Your task to perform on an android device: What's the weather going to be tomorrow? Image 0: 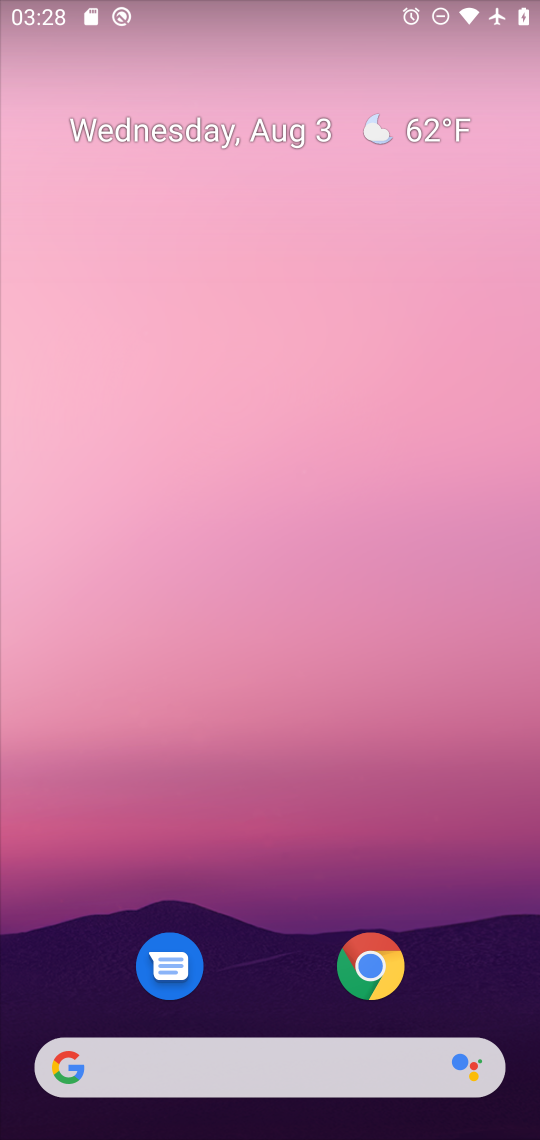
Step 0: drag from (288, 901) to (302, 375)
Your task to perform on an android device: What's the weather going to be tomorrow? Image 1: 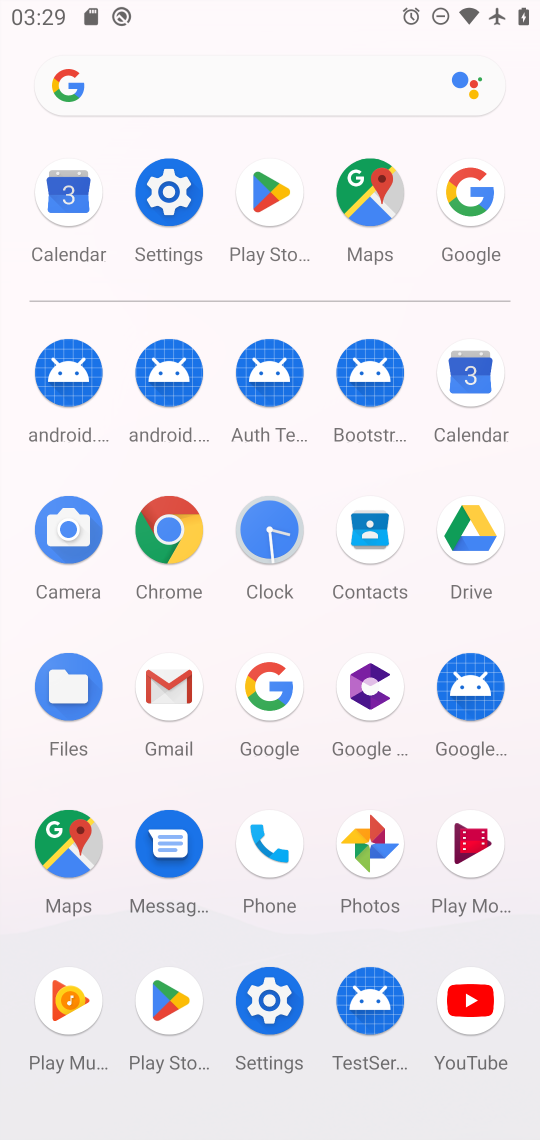
Step 1: click (294, 703)
Your task to perform on an android device: What's the weather going to be tomorrow? Image 2: 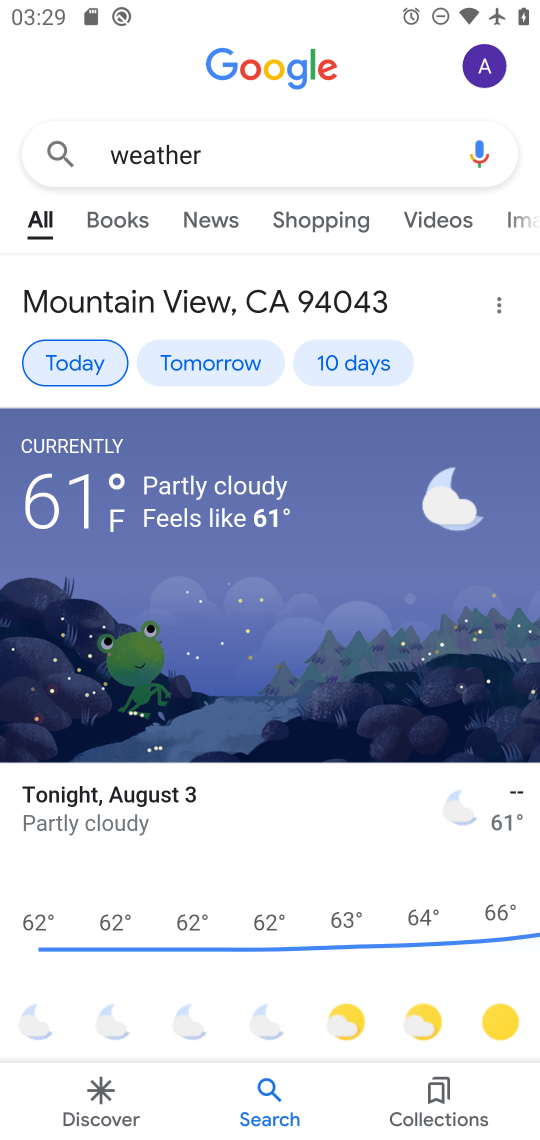
Step 2: click (230, 366)
Your task to perform on an android device: What's the weather going to be tomorrow? Image 3: 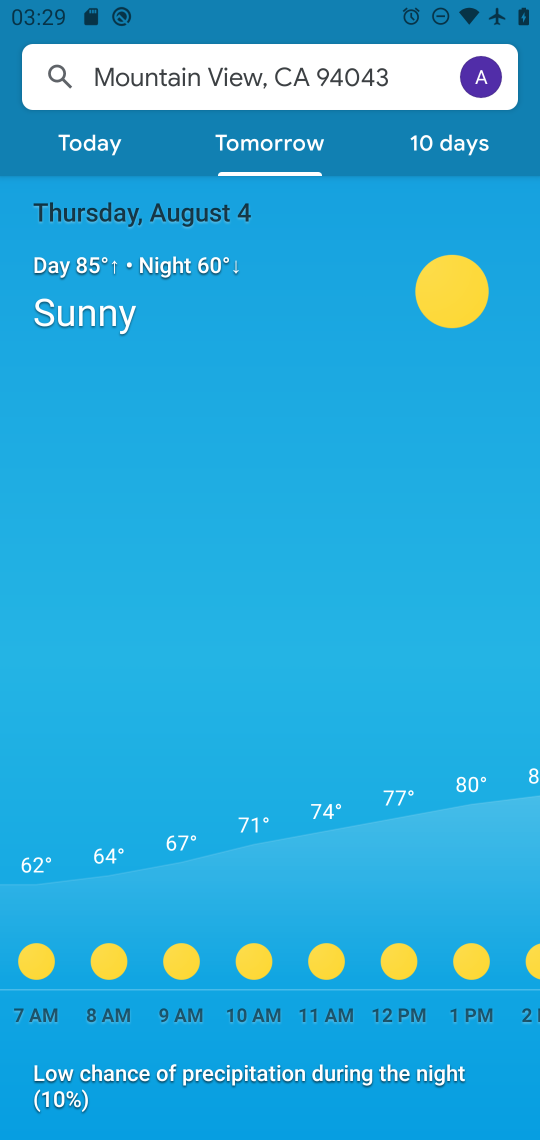
Step 3: task complete